Your task to perform on an android device: Show me some nice wallpapers for my laptop Image 0: 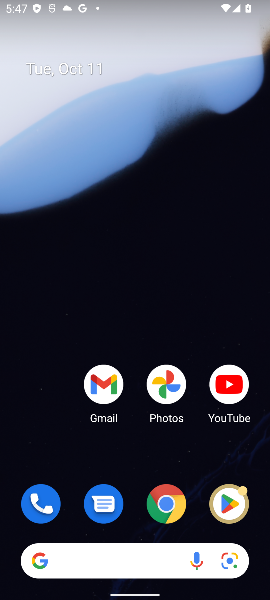
Step 0: click (107, 563)
Your task to perform on an android device: Show me some nice wallpapers for my laptop Image 1: 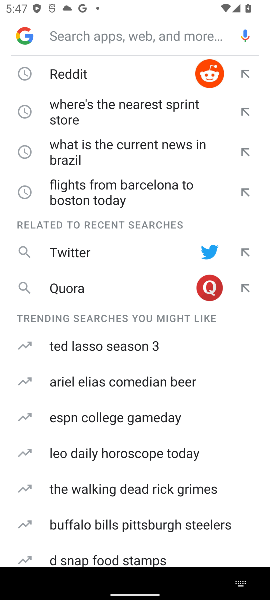
Step 1: click (92, 41)
Your task to perform on an android device: Show me some nice wallpapers for my laptop Image 2: 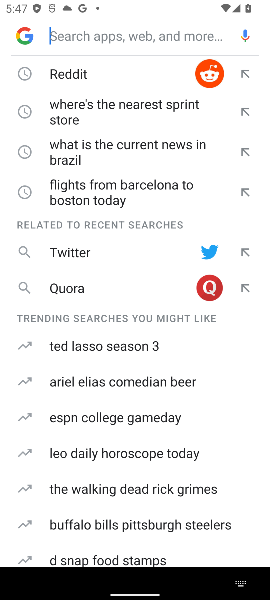
Step 2: type "some nice wallpapers for my laptop"
Your task to perform on an android device: Show me some nice wallpapers for my laptop Image 3: 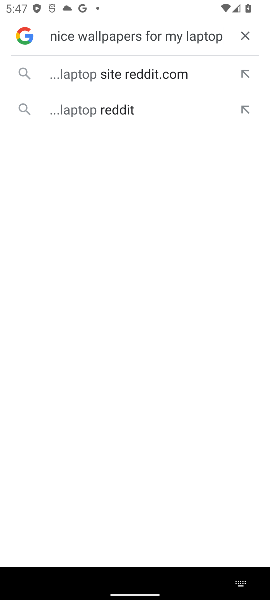
Step 3: click (169, 68)
Your task to perform on an android device: Show me some nice wallpapers for my laptop Image 4: 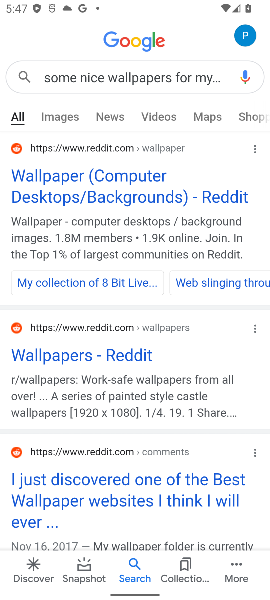
Step 4: click (91, 194)
Your task to perform on an android device: Show me some nice wallpapers for my laptop Image 5: 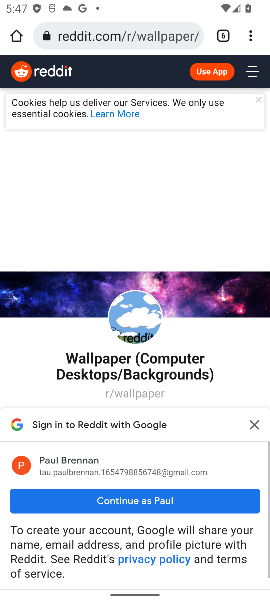
Step 5: drag from (116, 333) to (113, 9)
Your task to perform on an android device: Show me some nice wallpapers for my laptop Image 6: 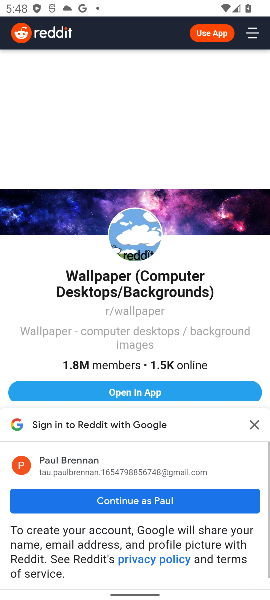
Step 6: click (248, 426)
Your task to perform on an android device: Show me some nice wallpapers for my laptop Image 7: 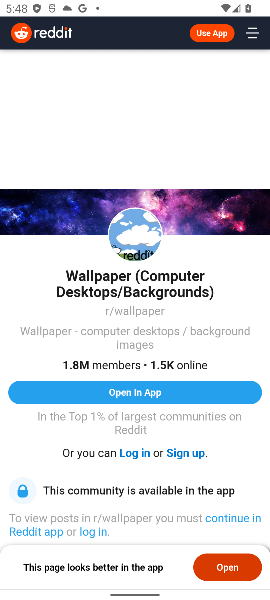
Step 7: task complete